Your task to perform on an android device: turn off notifications settings in the gmail app Image 0: 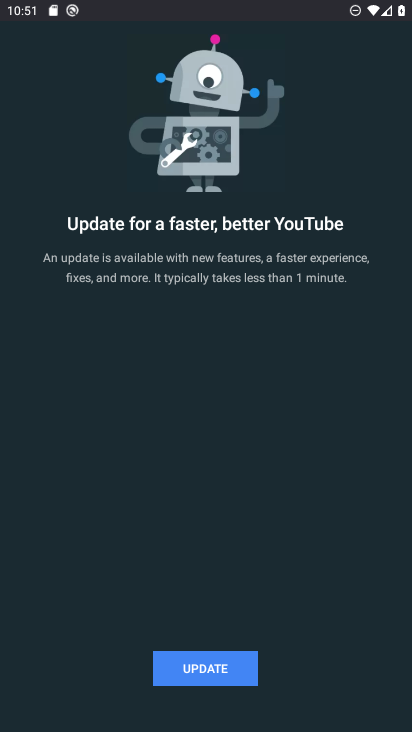
Step 0: click (156, 194)
Your task to perform on an android device: turn off notifications settings in the gmail app Image 1: 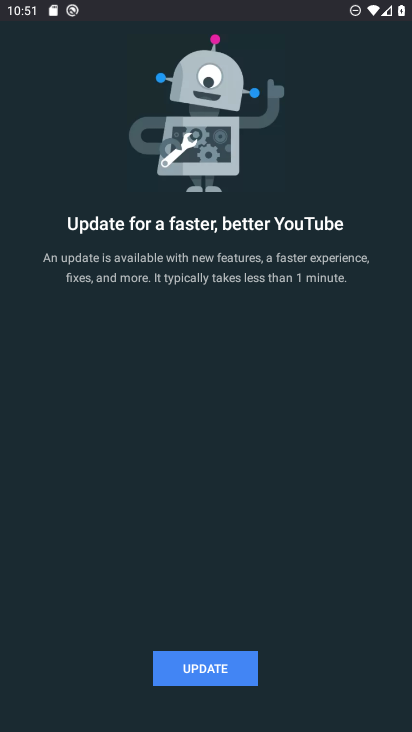
Step 1: press back button
Your task to perform on an android device: turn off notifications settings in the gmail app Image 2: 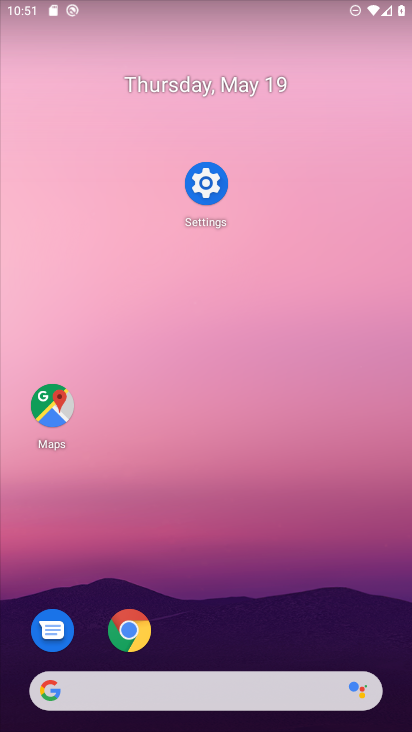
Step 2: drag from (305, 713) to (119, 30)
Your task to perform on an android device: turn off notifications settings in the gmail app Image 3: 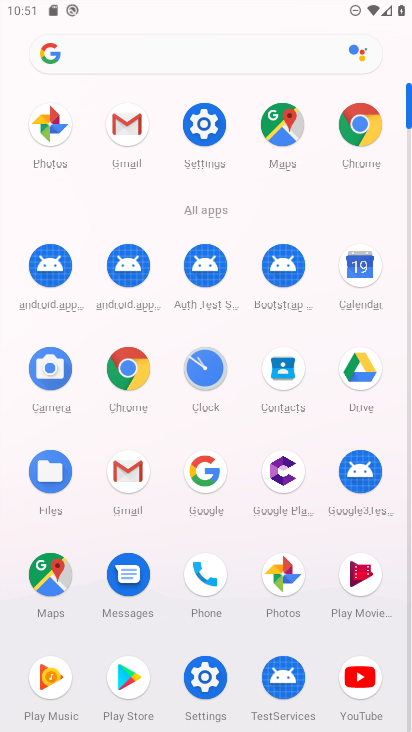
Step 3: click (110, 472)
Your task to perform on an android device: turn off notifications settings in the gmail app Image 4: 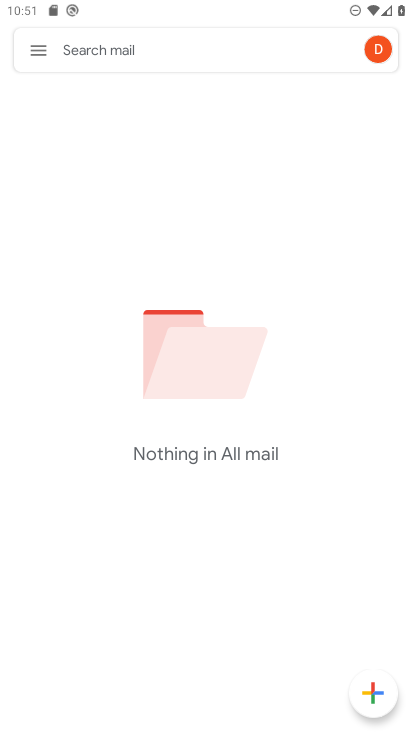
Step 4: click (46, 44)
Your task to perform on an android device: turn off notifications settings in the gmail app Image 5: 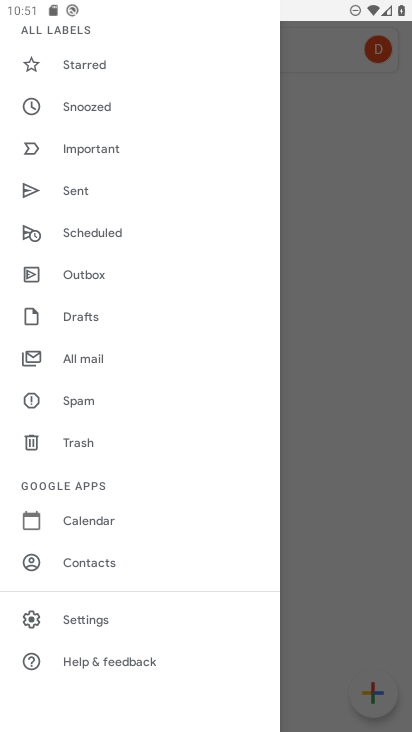
Step 5: click (88, 614)
Your task to perform on an android device: turn off notifications settings in the gmail app Image 6: 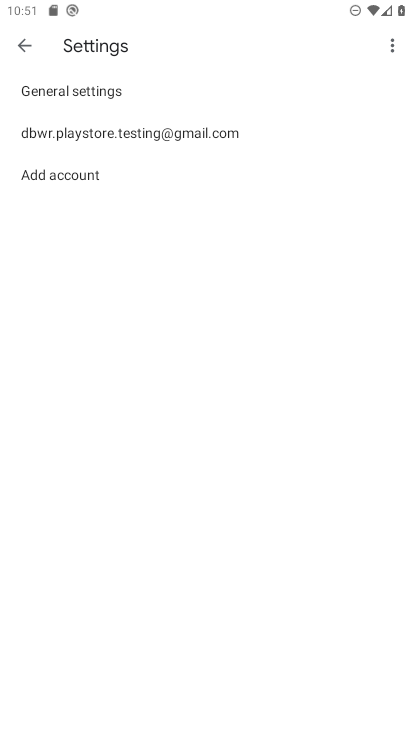
Step 6: click (91, 120)
Your task to perform on an android device: turn off notifications settings in the gmail app Image 7: 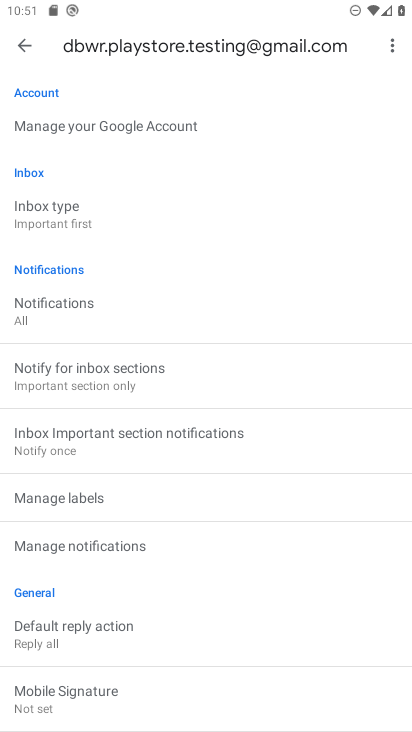
Step 7: click (40, 306)
Your task to perform on an android device: turn off notifications settings in the gmail app Image 8: 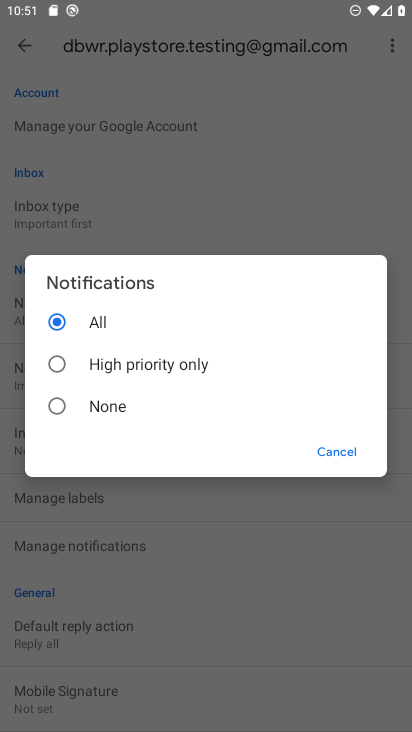
Step 8: click (60, 405)
Your task to perform on an android device: turn off notifications settings in the gmail app Image 9: 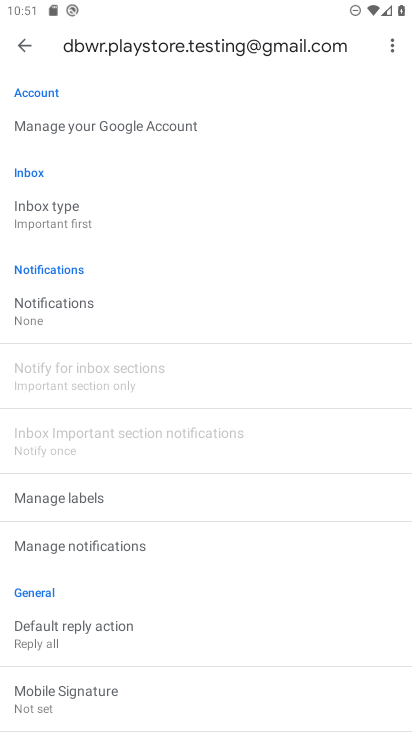
Step 9: task complete